Your task to perform on an android device: Go to Yahoo.com Image 0: 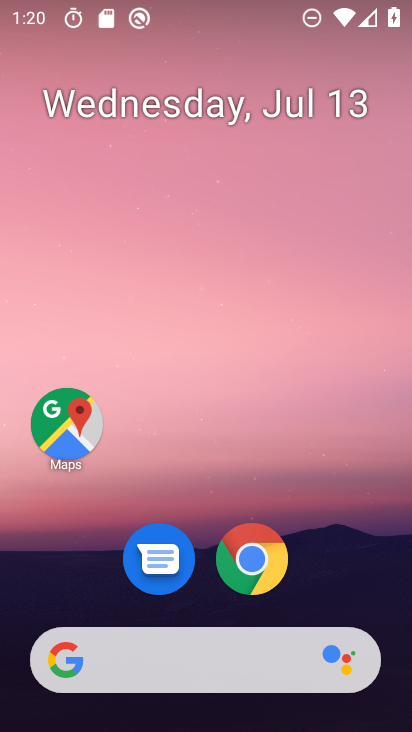
Step 0: drag from (172, 657) to (176, 281)
Your task to perform on an android device: Go to Yahoo.com Image 1: 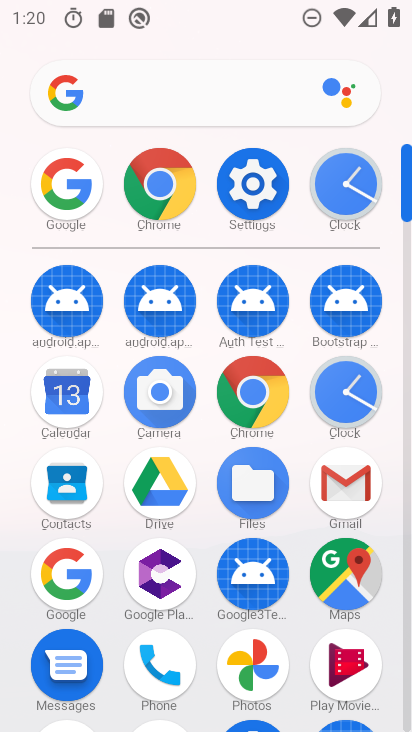
Step 1: click (170, 187)
Your task to perform on an android device: Go to Yahoo.com Image 2: 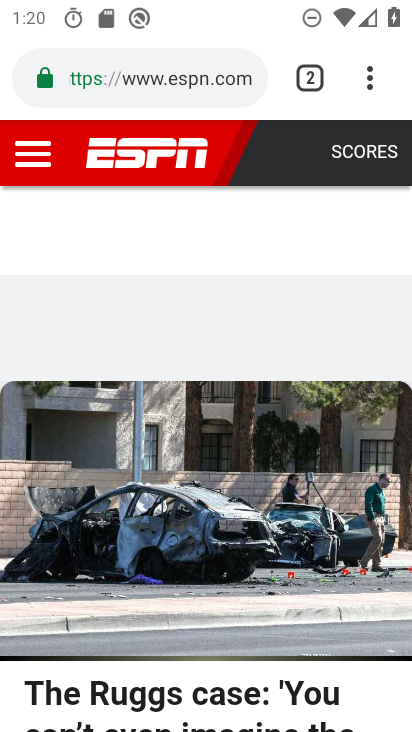
Step 2: click (203, 79)
Your task to perform on an android device: Go to Yahoo.com Image 3: 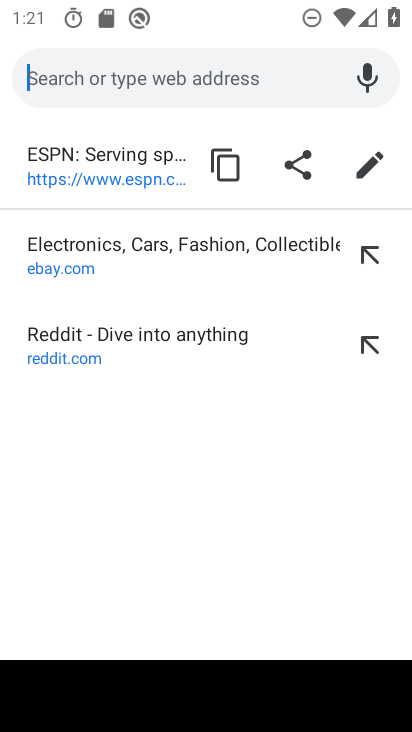
Step 3: type "yahoo"
Your task to perform on an android device: Go to Yahoo.com Image 4: 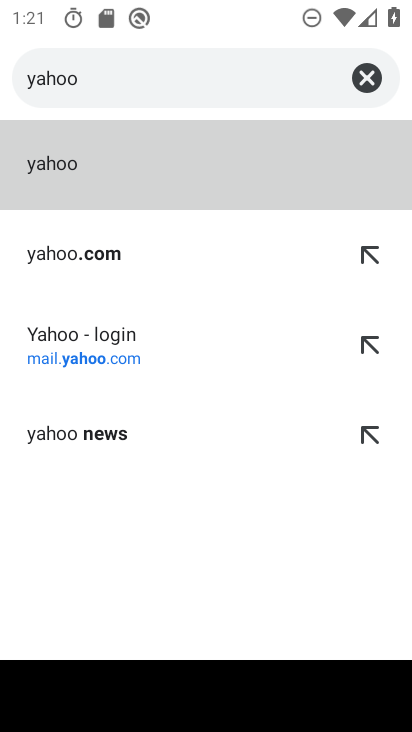
Step 4: click (104, 355)
Your task to perform on an android device: Go to Yahoo.com Image 5: 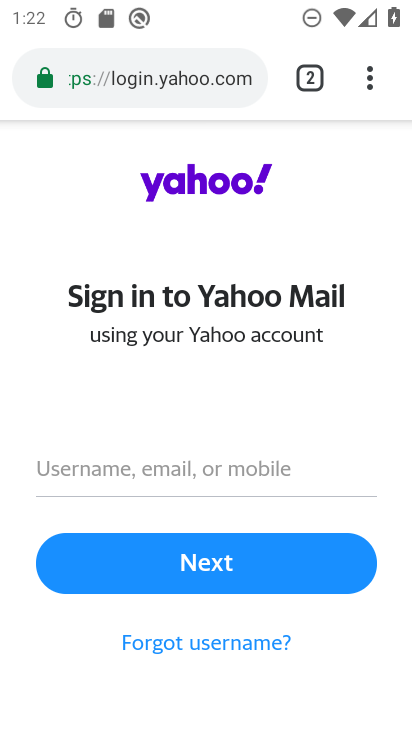
Step 5: task complete